Your task to perform on an android device: check data usage Image 0: 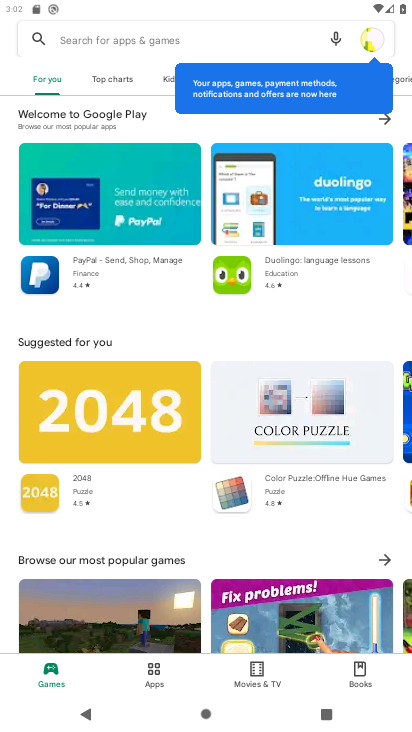
Step 0: press home button
Your task to perform on an android device: check data usage Image 1: 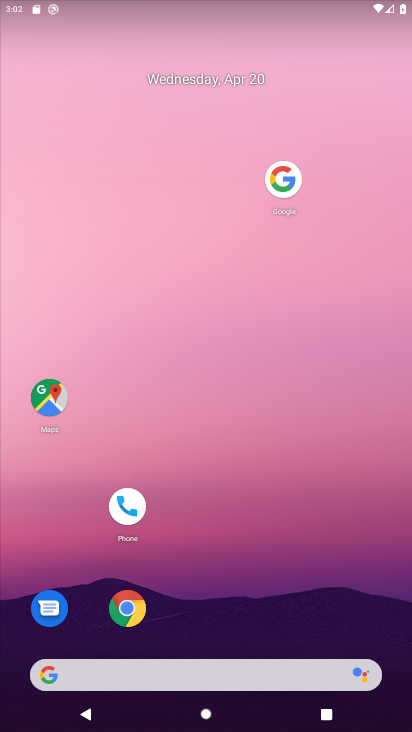
Step 1: drag from (255, 459) to (278, 168)
Your task to perform on an android device: check data usage Image 2: 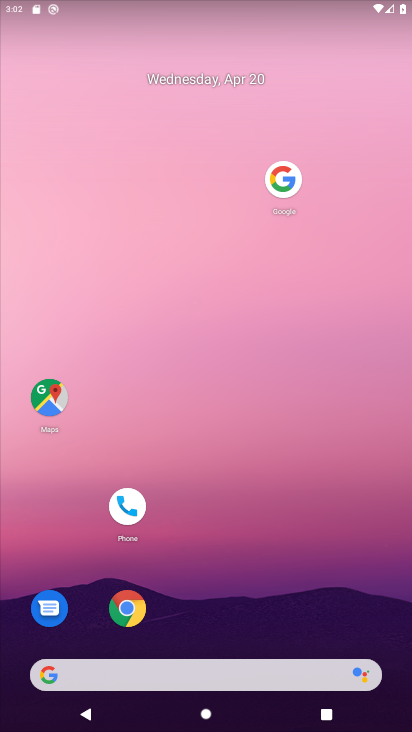
Step 2: drag from (334, 456) to (351, 181)
Your task to perform on an android device: check data usage Image 3: 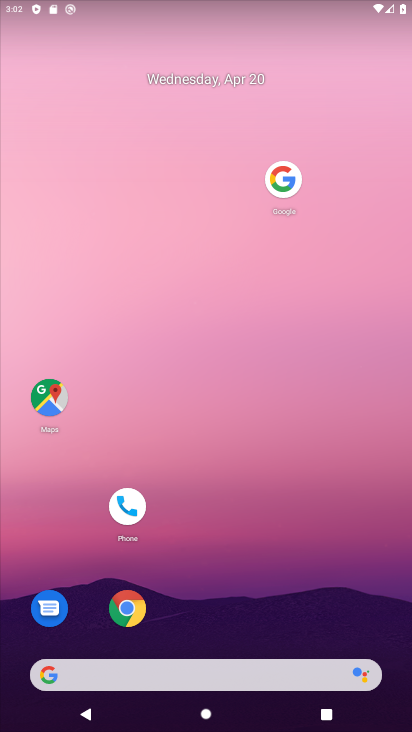
Step 3: drag from (277, 600) to (267, 147)
Your task to perform on an android device: check data usage Image 4: 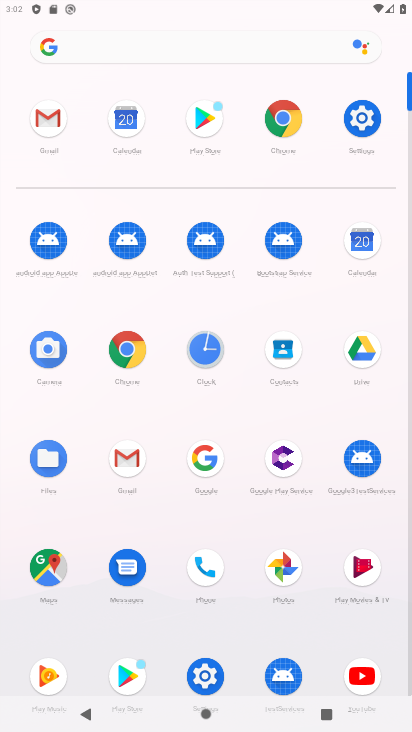
Step 4: click (364, 118)
Your task to perform on an android device: check data usage Image 5: 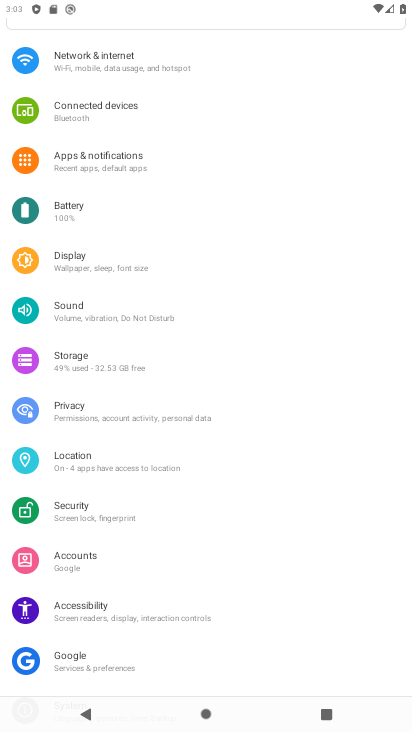
Step 5: drag from (179, 598) to (197, 229)
Your task to perform on an android device: check data usage Image 6: 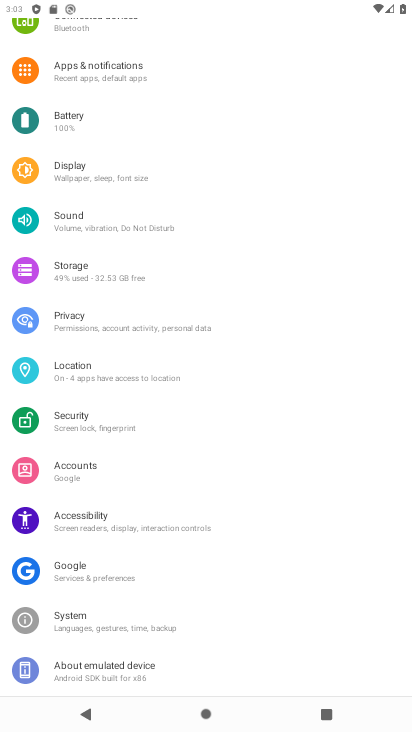
Step 6: drag from (199, 171) to (184, 567)
Your task to perform on an android device: check data usage Image 7: 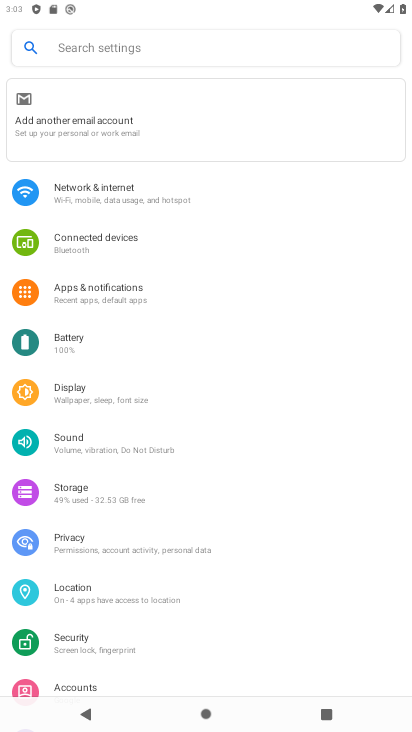
Step 7: click (104, 193)
Your task to perform on an android device: check data usage Image 8: 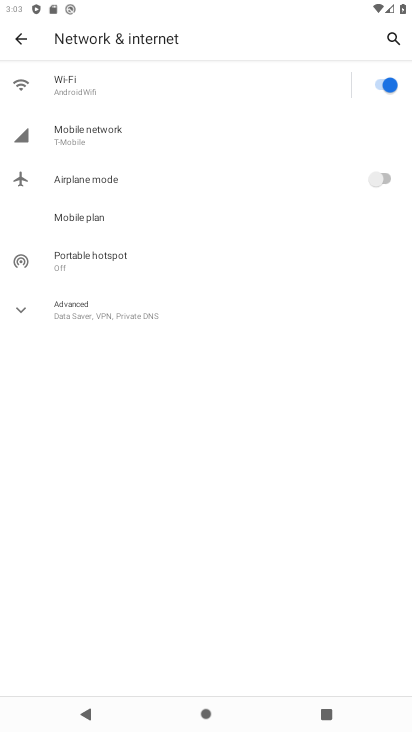
Step 8: click (103, 134)
Your task to perform on an android device: check data usage Image 9: 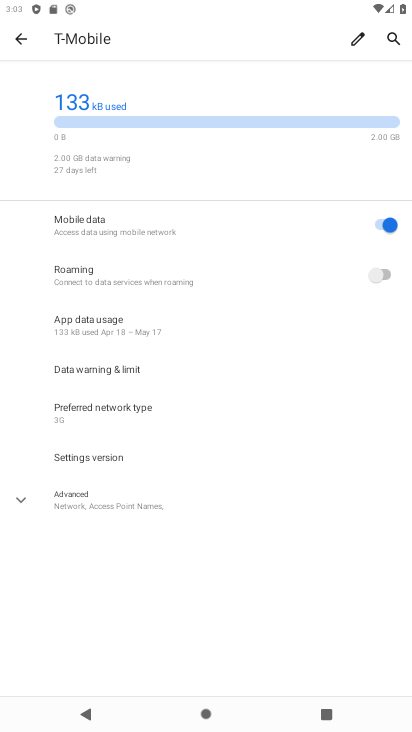
Step 9: task complete